Your task to perform on an android device: Check out the new nike air max 2020. Image 0: 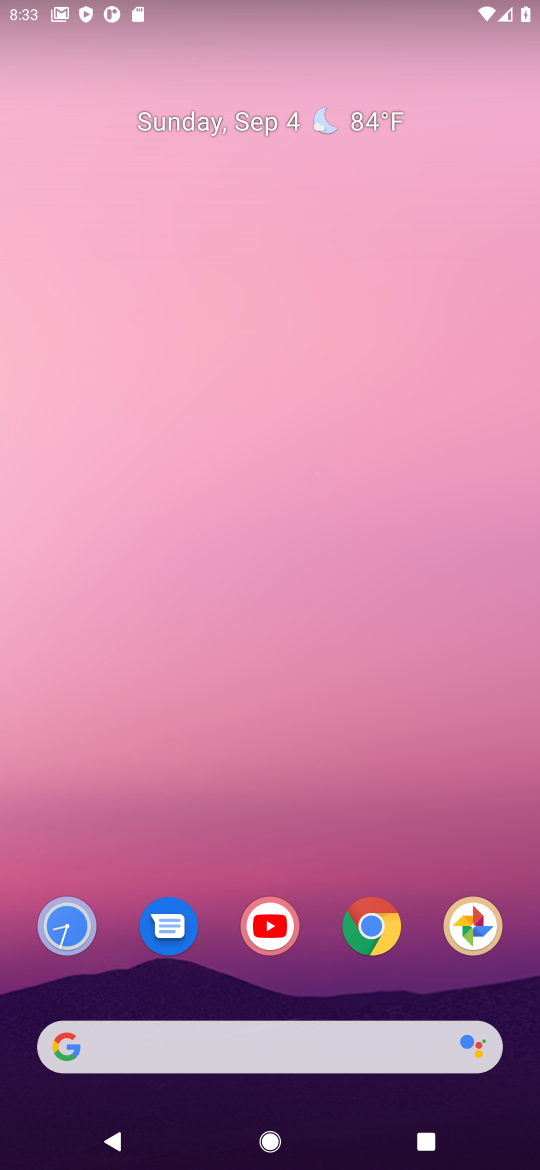
Step 0: click (207, 1044)
Your task to perform on an android device: Check out the new nike air max 2020. Image 1: 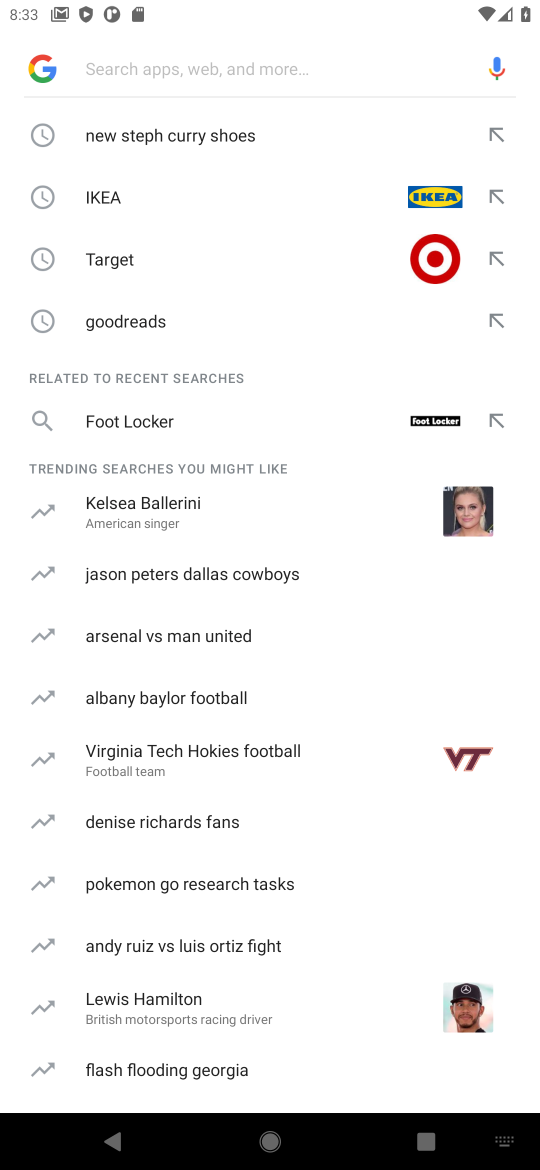
Step 1: type "new nike air max 2020"
Your task to perform on an android device: Check out the new nike air max 2020. Image 2: 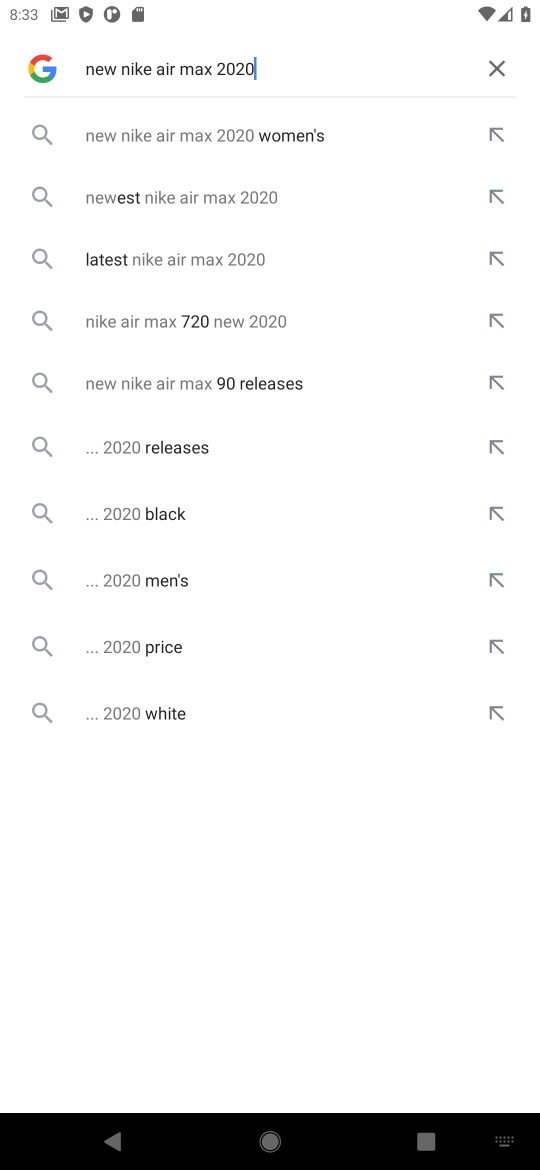
Step 2: click (201, 194)
Your task to perform on an android device: Check out the new nike air max 2020. Image 3: 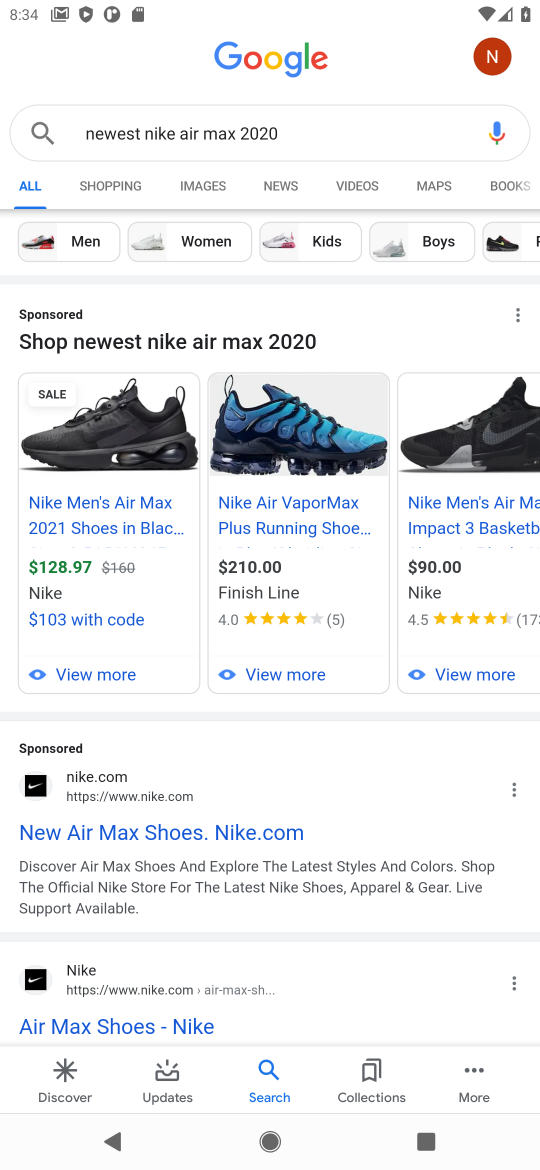
Step 3: click (145, 824)
Your task to perform on an android device: Check out the new nike air max 2020. Image 4: 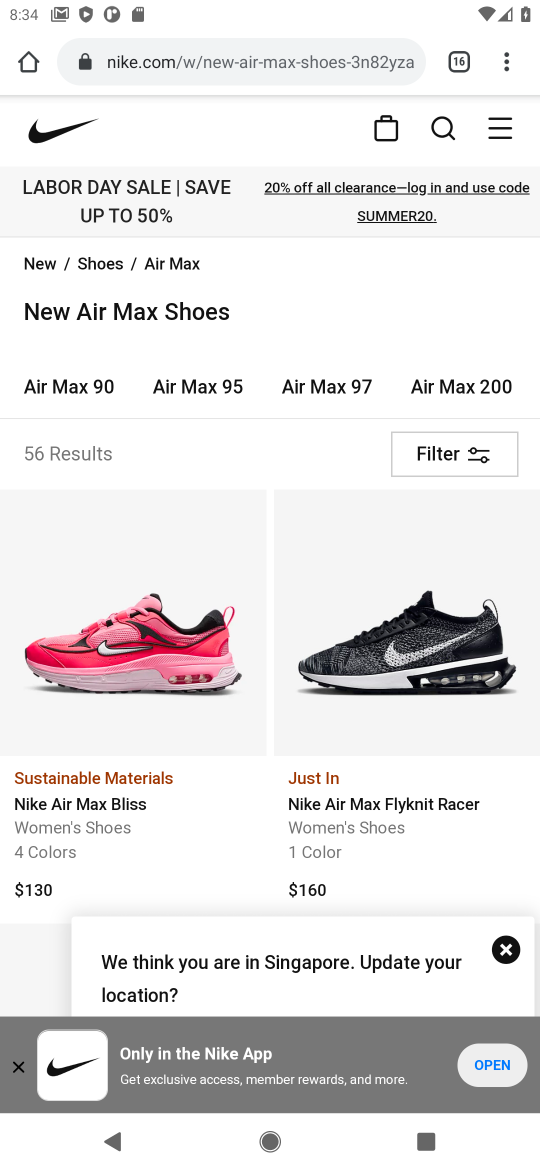
Step 4: task complete